Your task to perform on an android device: show emergency info Image 0: 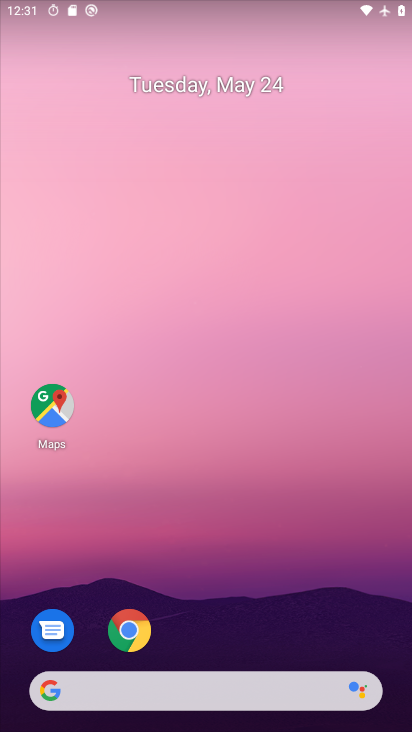
Step 0: drag from (202, 645) to (280, 182)
Your task to perform on an android device: show emergency info Image 1: 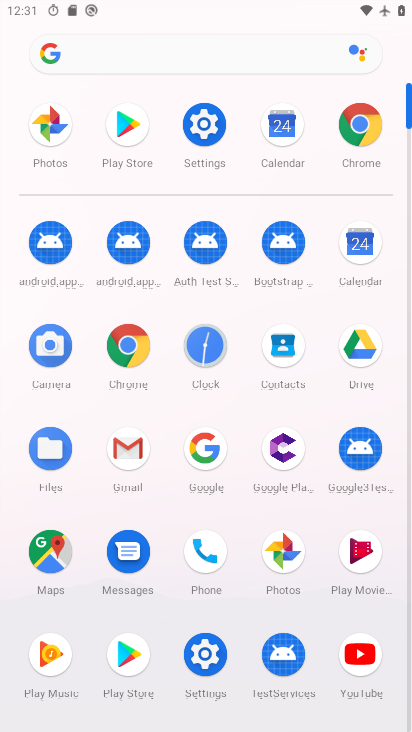
Step 1: click (207, 136)
Your task to perform on an android device: show emergency info Image 2: 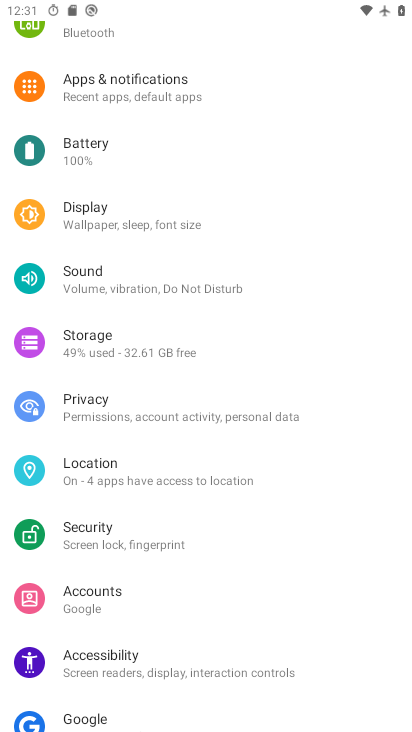
Step 2: drag from (131, 436) to (190, 203)
Your task to perform on an android device: show emergency info Image 3: 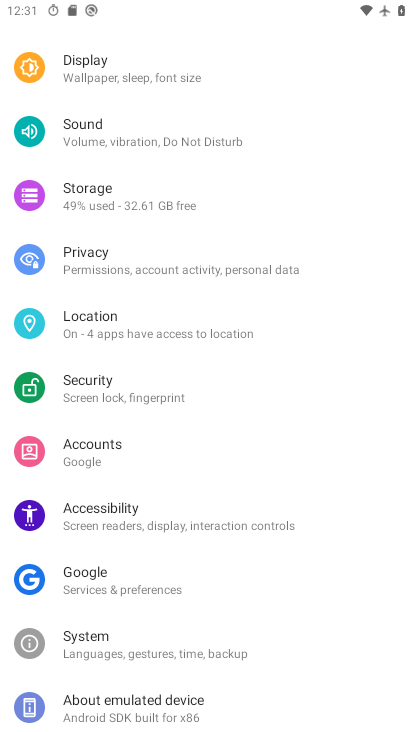
Step 3: drag from (115, 698) to (159, 519)
Your task to perform on an android device: show emergency info Image 4: 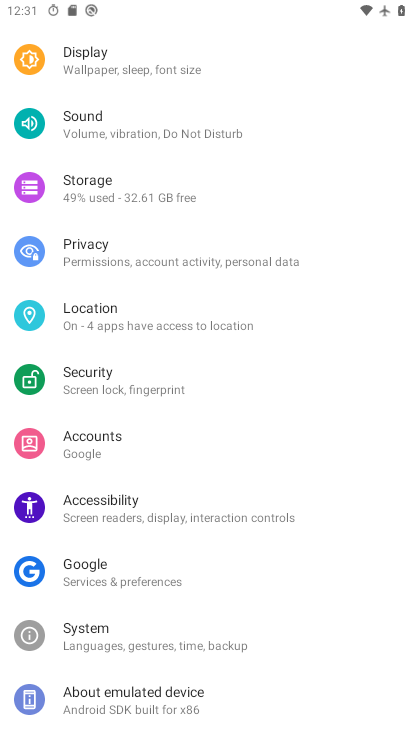
Step 4: click (123, 690)
Your task to perform on an android device: show emergency info Image 5: 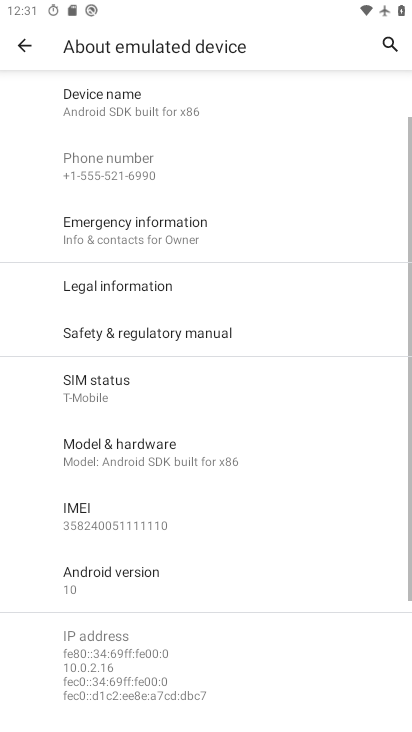
Step 5: click (150, 219)
Your task to perform on an android device: show emergency info Image 6: 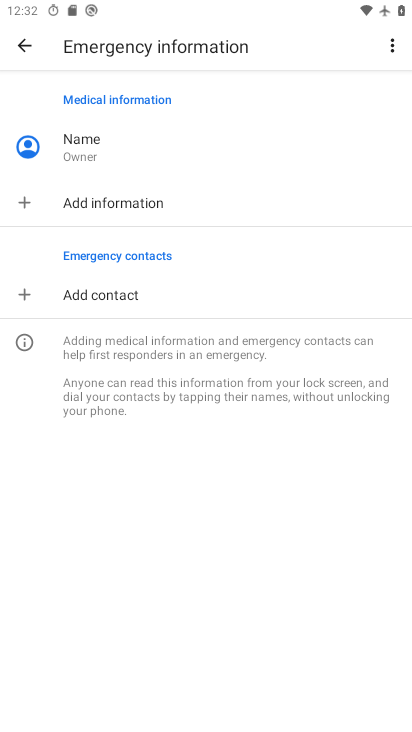
Step 6: task complete